Your task to perform on an android device: Search for vegetarian restaurants on Maps Image 0: 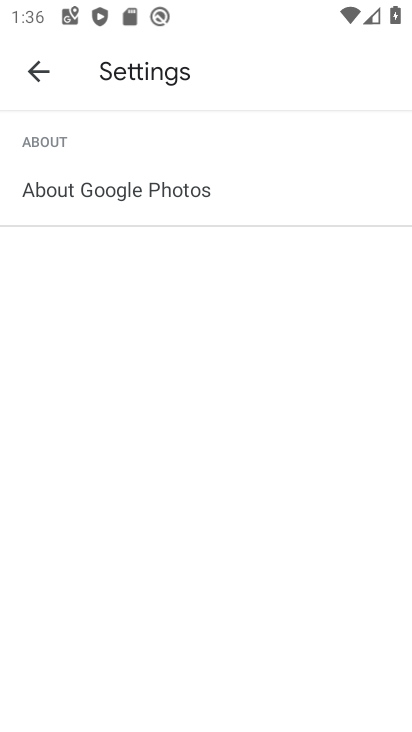
Step 0: press home button
Your task to perform on an android device: Search for vegetarian restaurants on Maps Image 1: 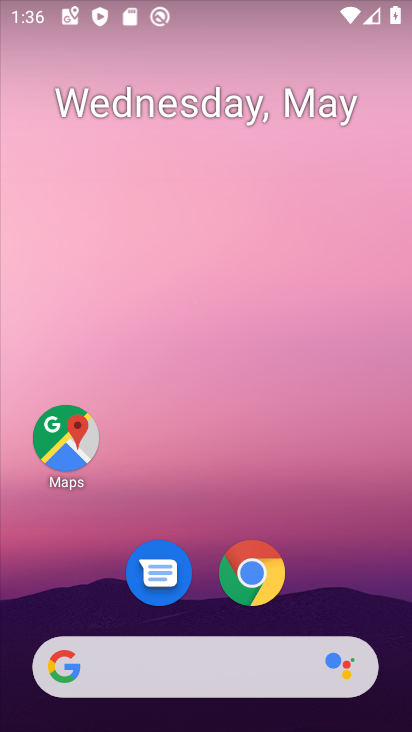
Step 1: click (45, 447)
Your task to perform on an android device: Search for vegetarian restaurants on Maps Image 2: 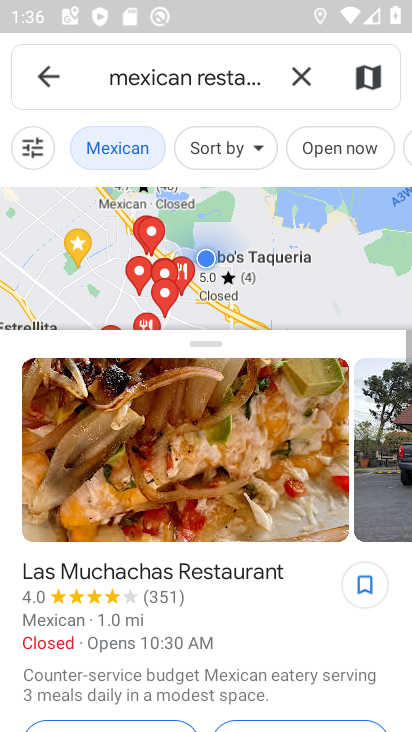
Step 2: click (296, 83)
Your task to perform on an android device: Search for vegetarian restaurants on Maps Image 3: 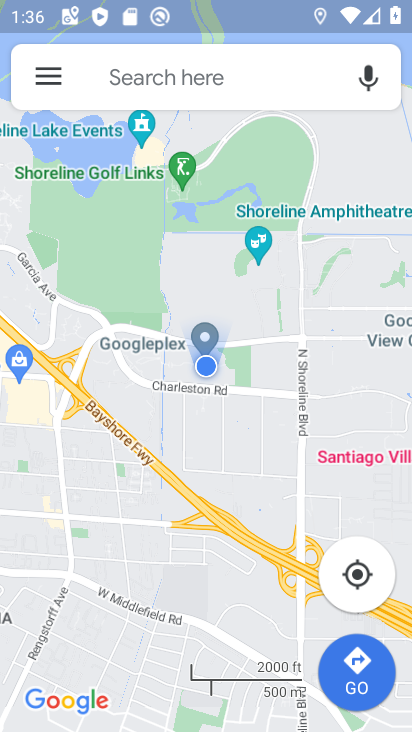
Step 3: click (188, 79)
Your task to perform on an android device: Search for vegetarian restaurants on Maps Image 4: 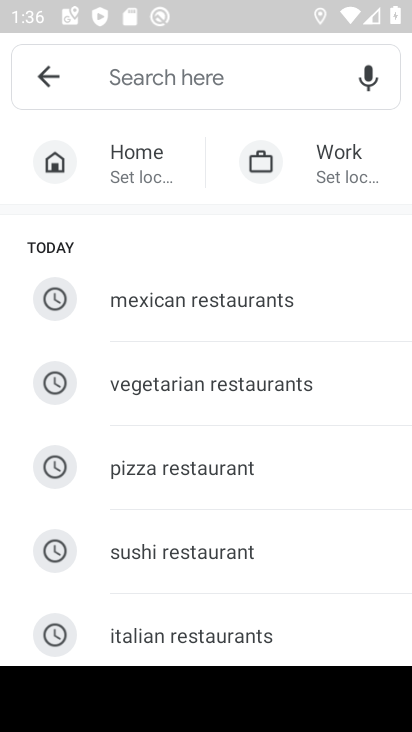
Step 4: type "vegetarian restaurant"
Your task to perform on an android device: Search for vegetarian restaurants on Maps Image 5: 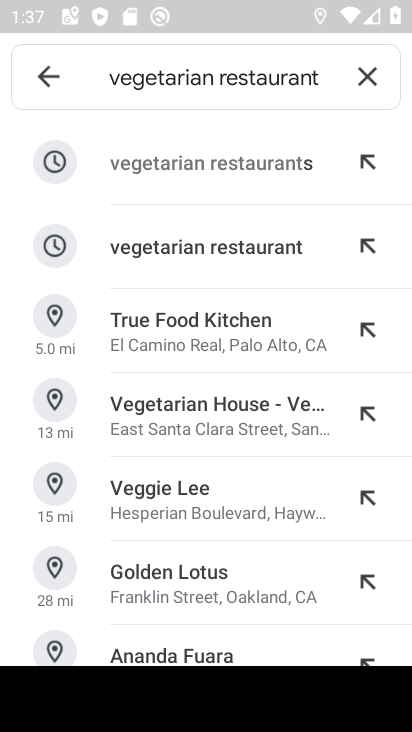
Step 5: click (282, 179)
Your task to perform on an android device: Search for vegetarian restaurants on Maps Image 6: 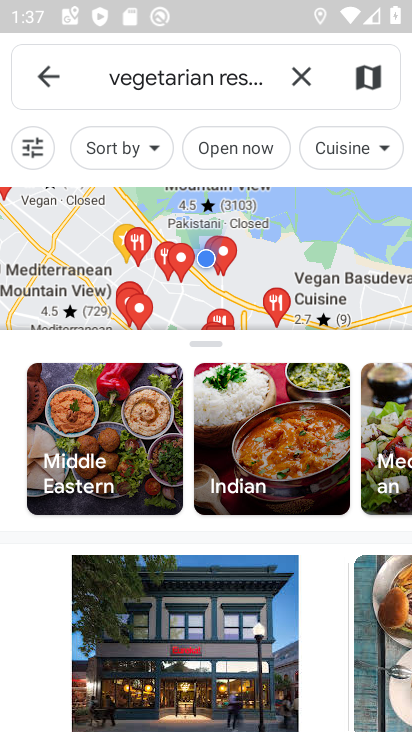
Step 6: task complete